Your task to perform on an android device: check google app version Image 0: 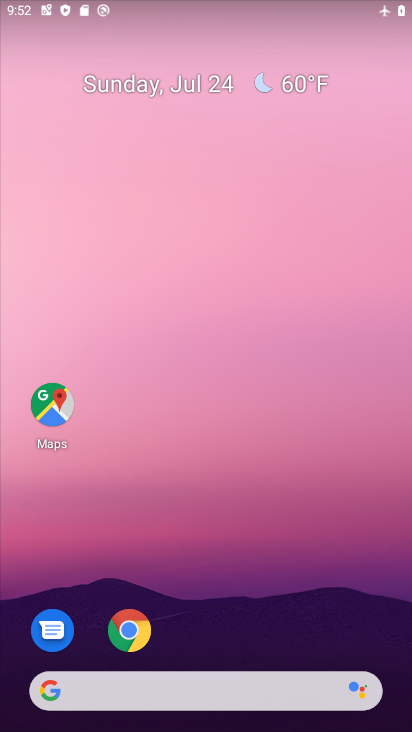
Step 0: click (42, 691)
Your task to perform on an android device: check google app version Image 1: 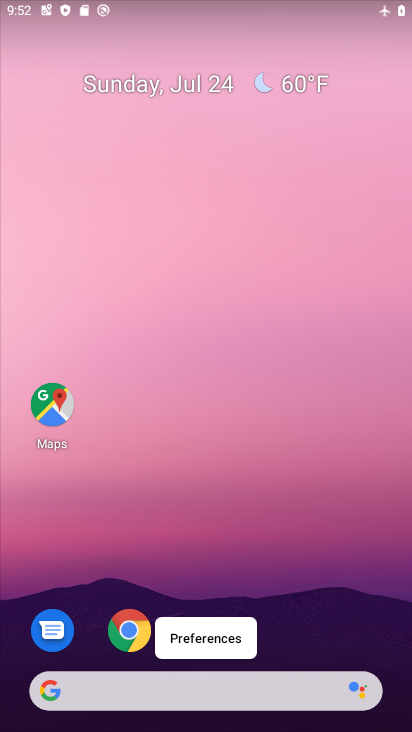
Step 1: click (51, 688)
Your task to perform on an android device: check google app version Image 2: 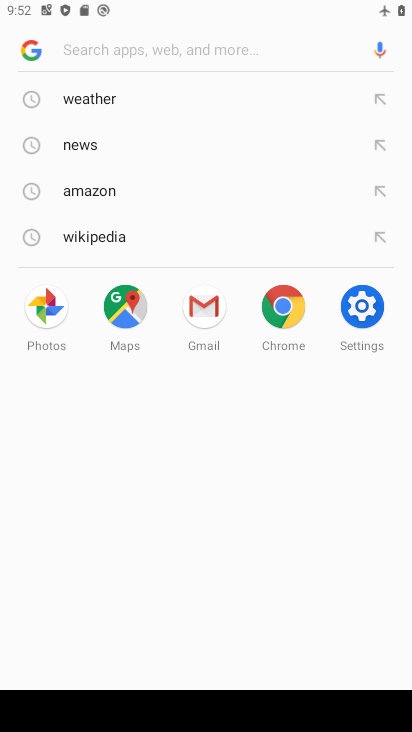
Step 2: click (34, 51)
Your task to perform on an android device: check google app version Image 3: 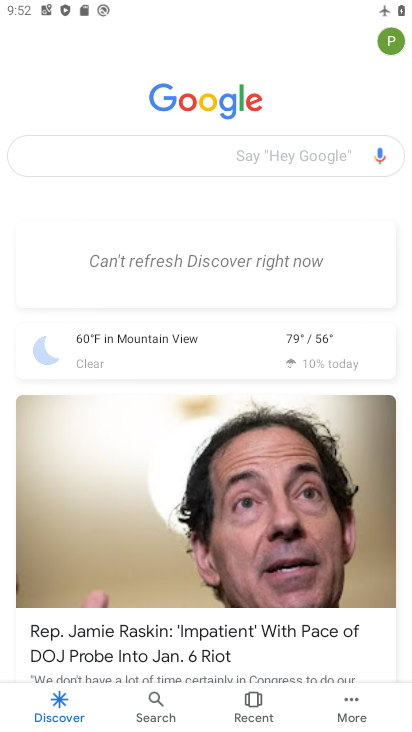
Step 3: click (353, 700)
Your task to perform on an android device: check google app version Image 4: 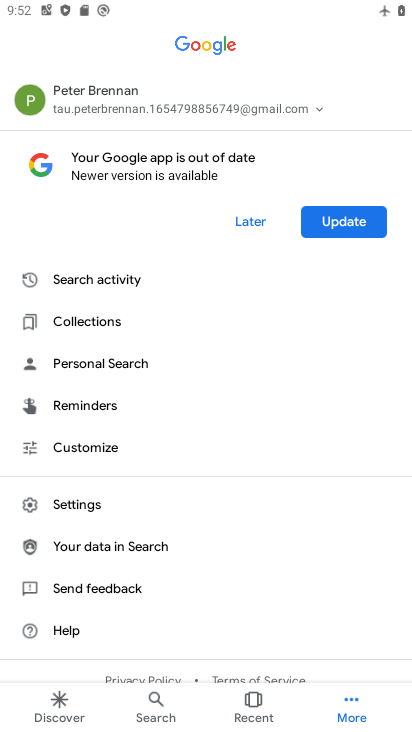
Step 4: click (79, 505)
Your task to perform on an android device: check google app version Image 5: 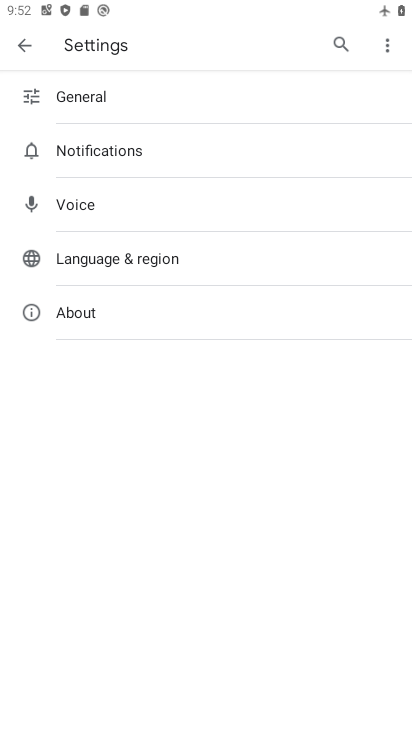
Step 5: click (88, 322)
Your task to perform on an android device: check google app version Image 6: 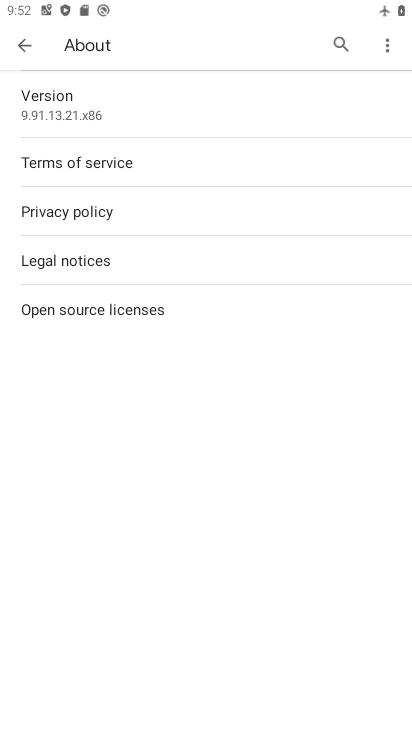
Step 6: task complete